Your task to perform on an android device: Do I have any events today? Image 0: 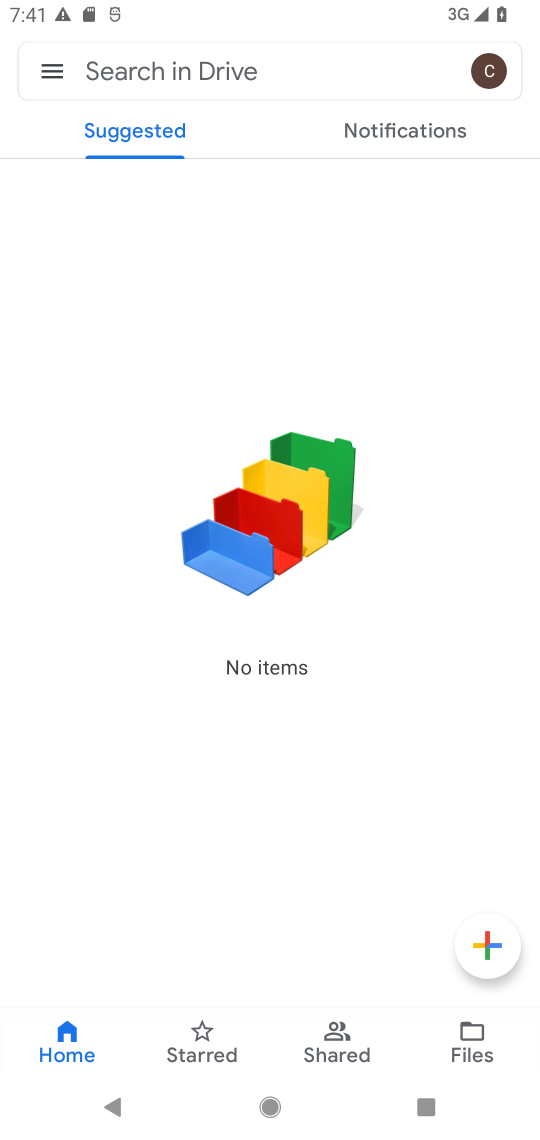
Step 0: press home button
Your task to perform on an android device: Do I have any events today? Image 1: 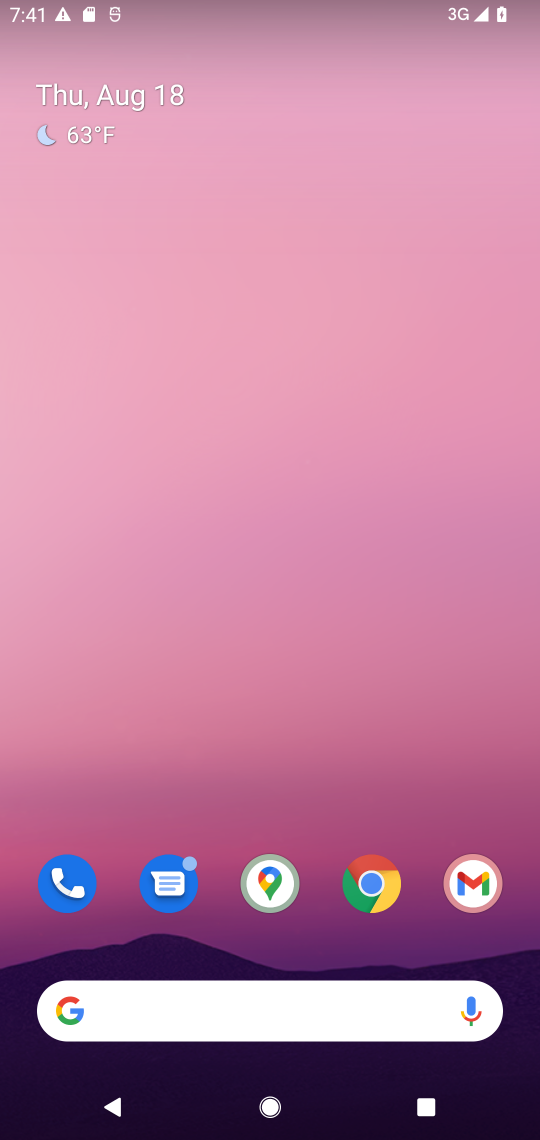
Step 1: drag from (58, 1044) to (186, 741)
Your task to perform on an android device: Do I have any events today? Image 2: 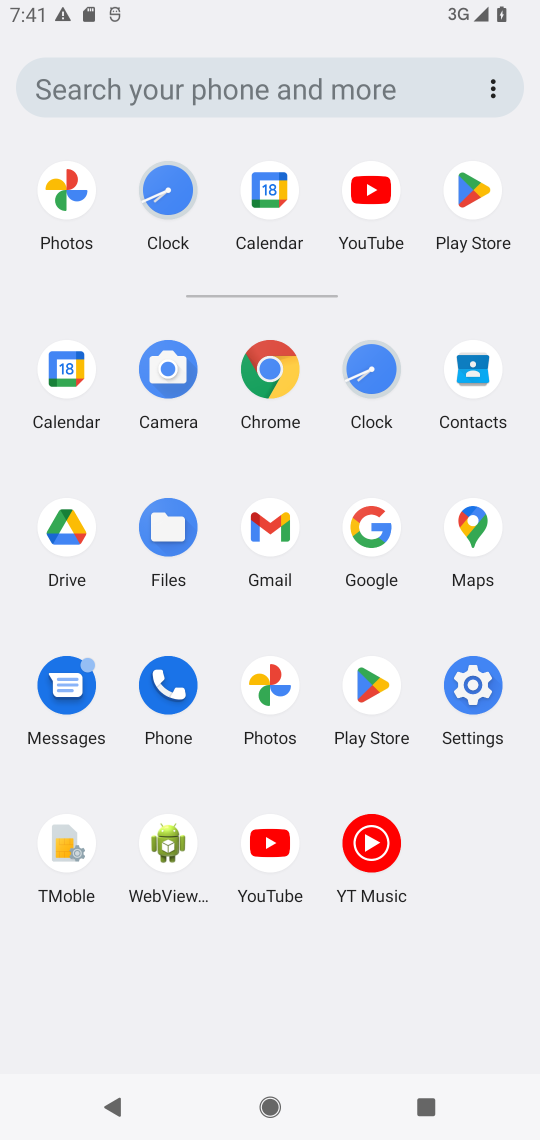
Step 2: click (55, 400)
Your task to perform on an android device: Do I have any events today? Image 3: 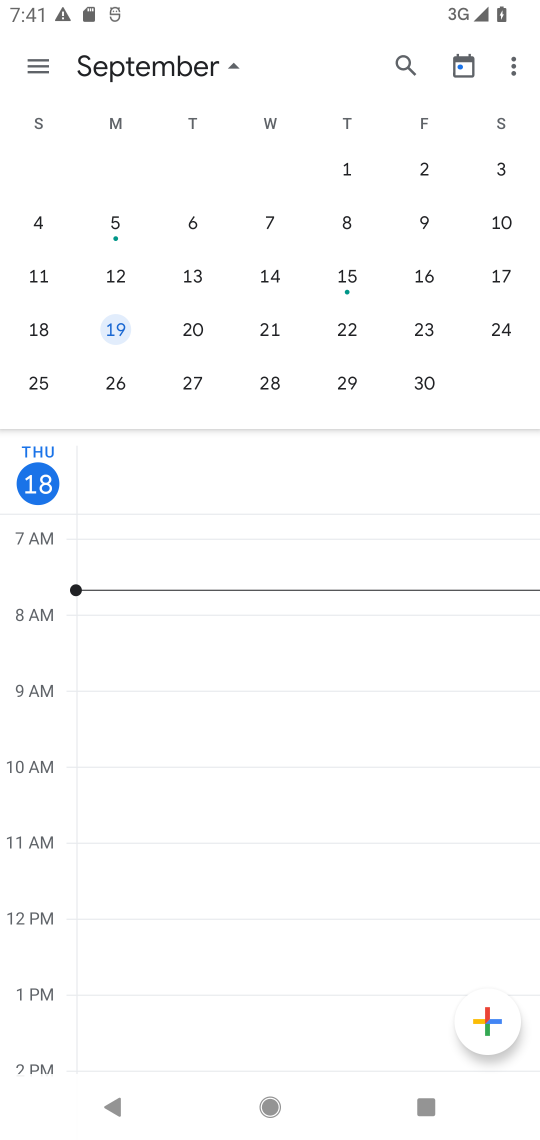
Step 3: drag from (20, 158) to (528, 200)
Your task to perform on an android device: Do I have any events today? Image 4: 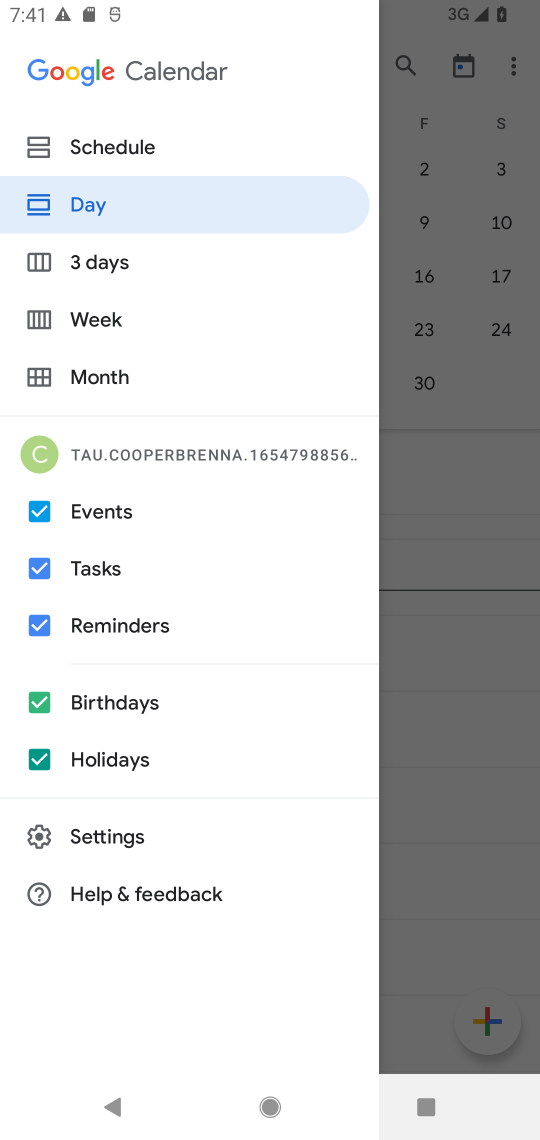
Step 4: click (320, 461)
Your task to perform on an android device: Do I have any events today? Image 5: 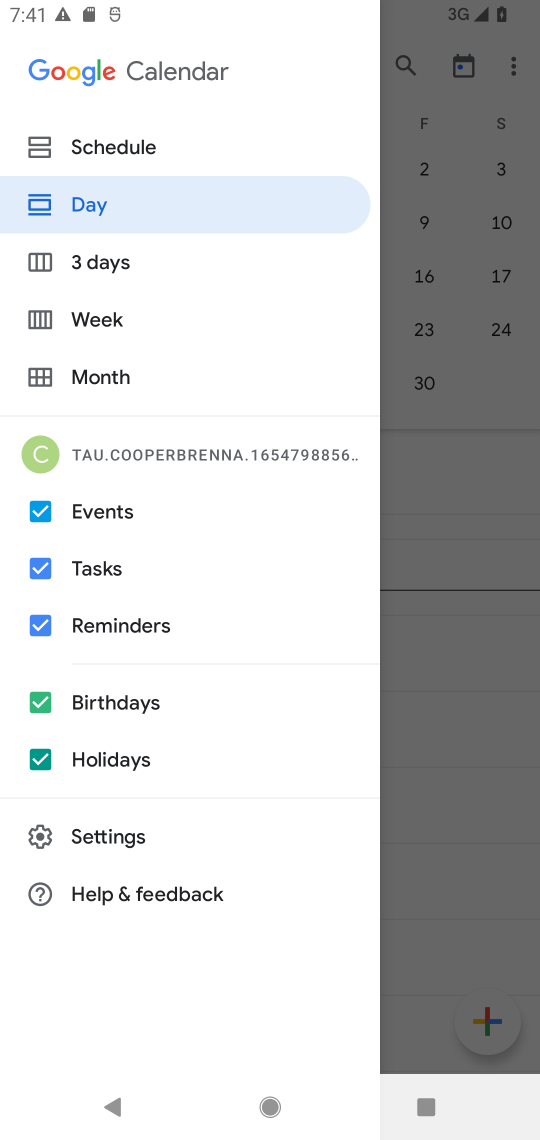
Step 5: click (418, 471)
Your task to perform on an android device: Do I have any events today? Image 6: 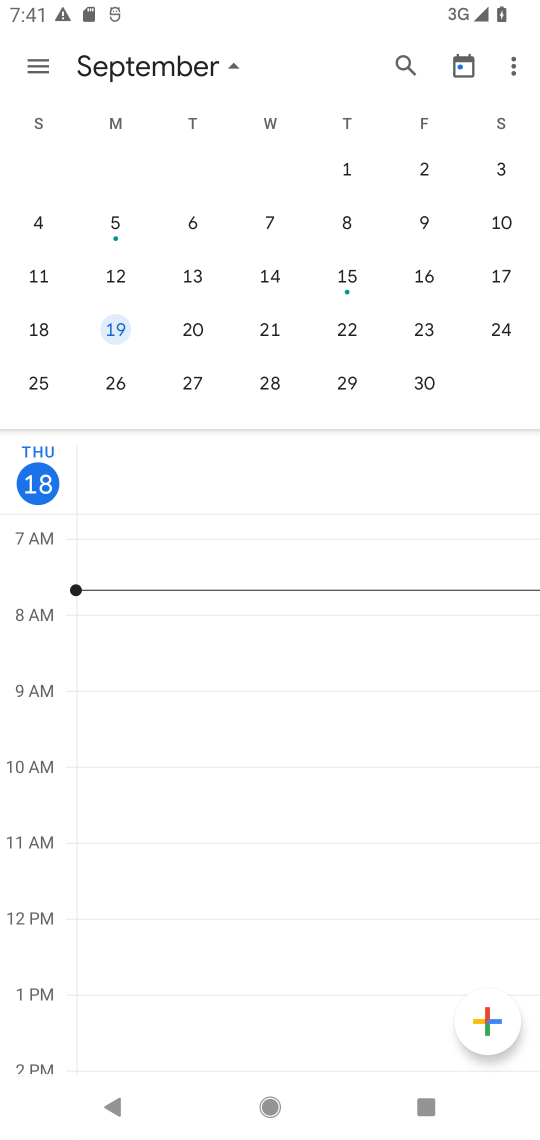
Step 6: drag from (9, 209) to (508, 295)
Your task to perform on an android device: Do I have any events today? Image 7: 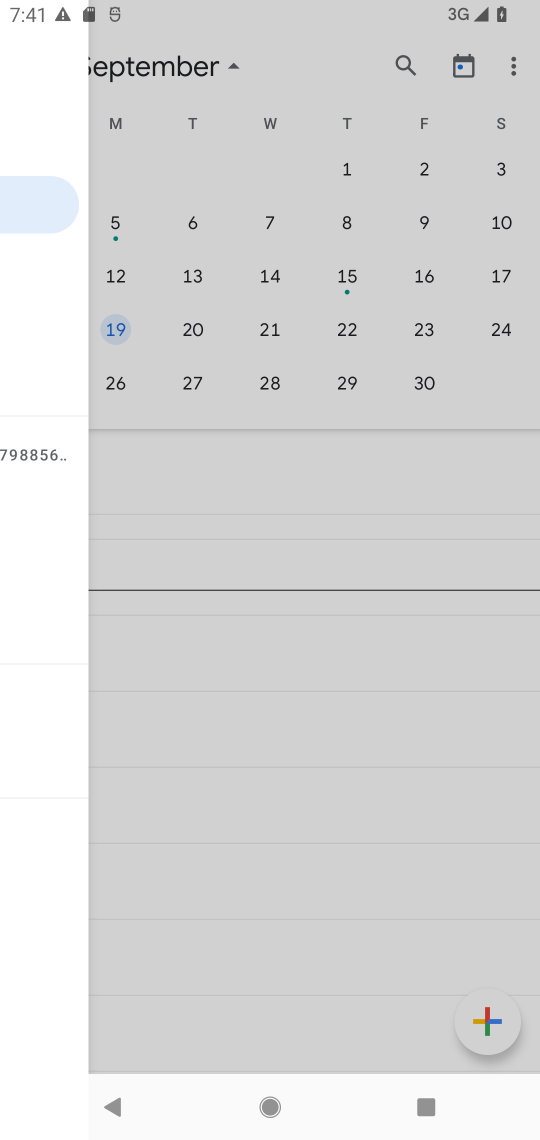
Step 7: click (423, 462)
Your task to perform on an android device: Do I have any events today? Image 8: 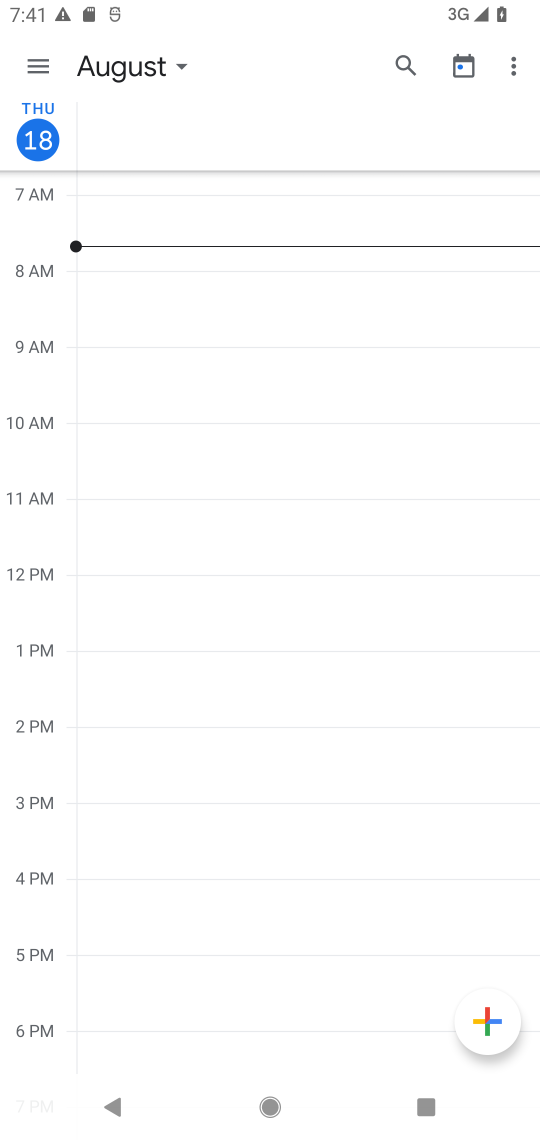
Step 8: click (179, 74)
Your task to perform on an android device: Do I have any events today? Image 9: 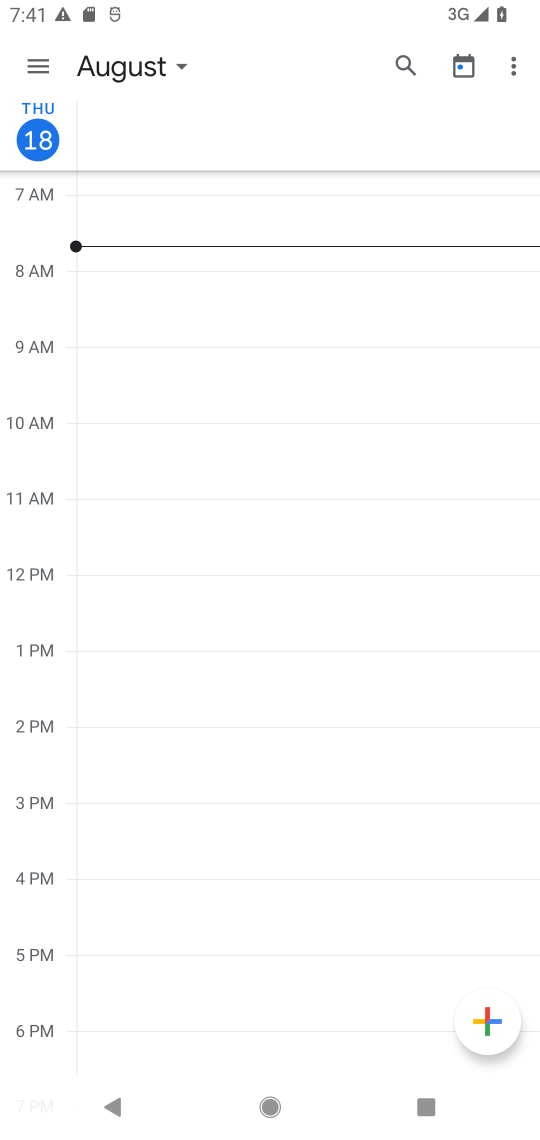
Step 9: click (185, 74)
Your task to perform on an android device: Do I have any events today? Image 10: 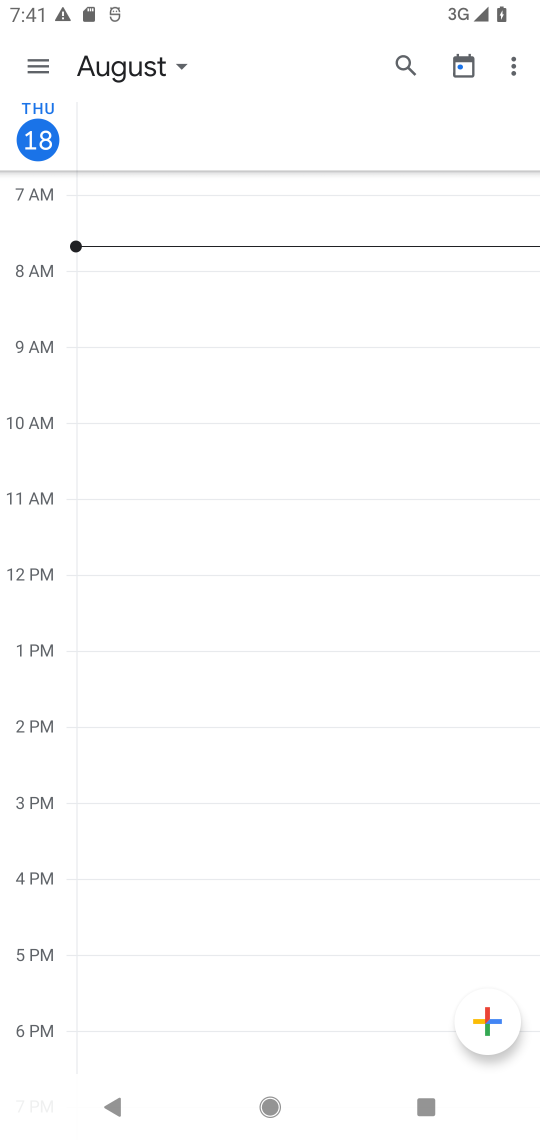
Step 10: click (170, 52)
Your task to perform on an android device: Do I have any events today? Image 11: 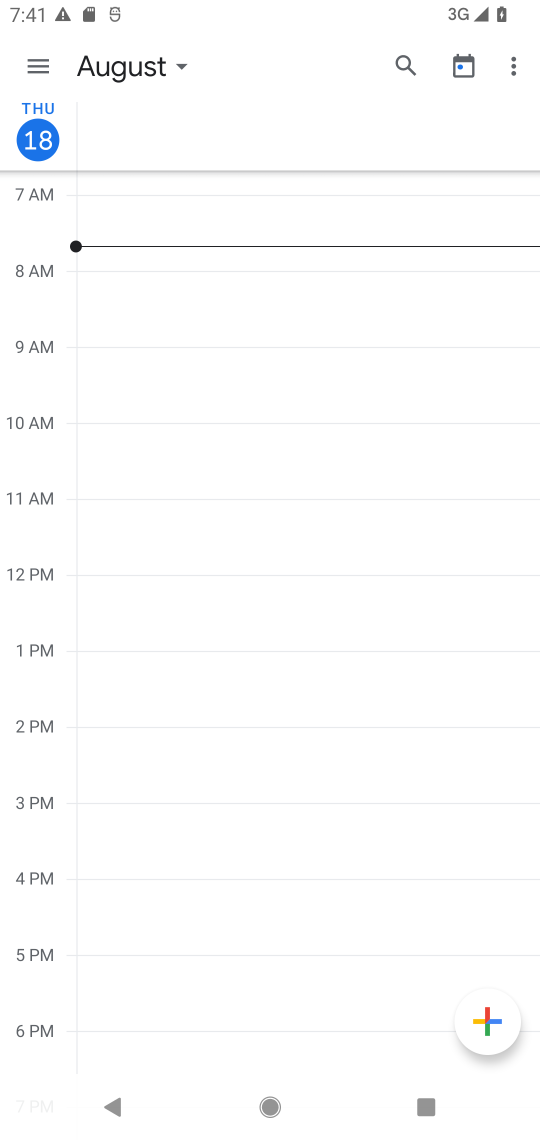
Step 11: click (112, 60)
Your task to perform on an android device: Do I have any events today? Image 12: 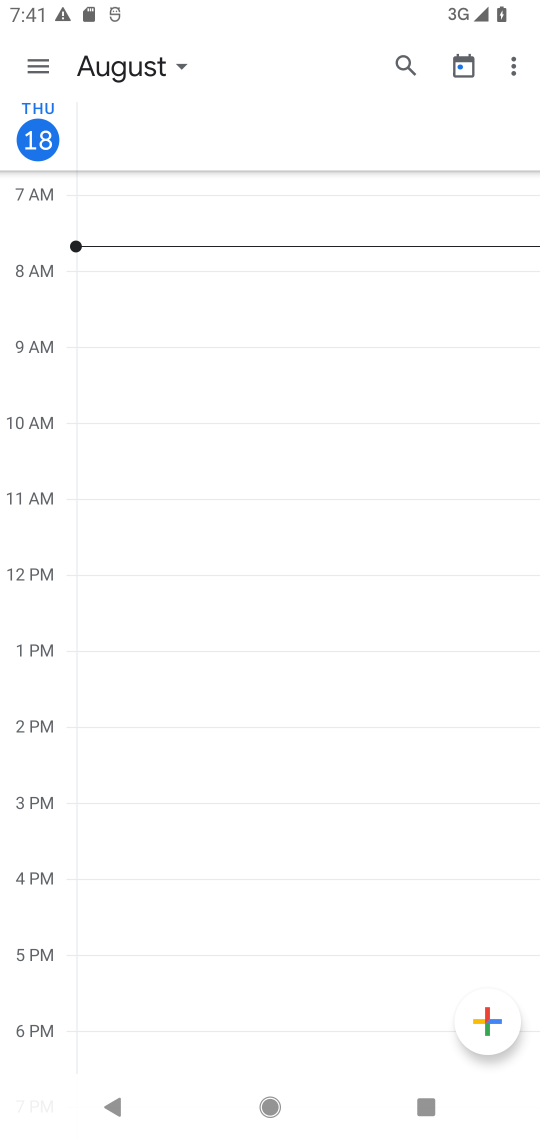
Step 12: click (112, 60)
Your task to perform on an android device: Do I have any events today? Image 13: 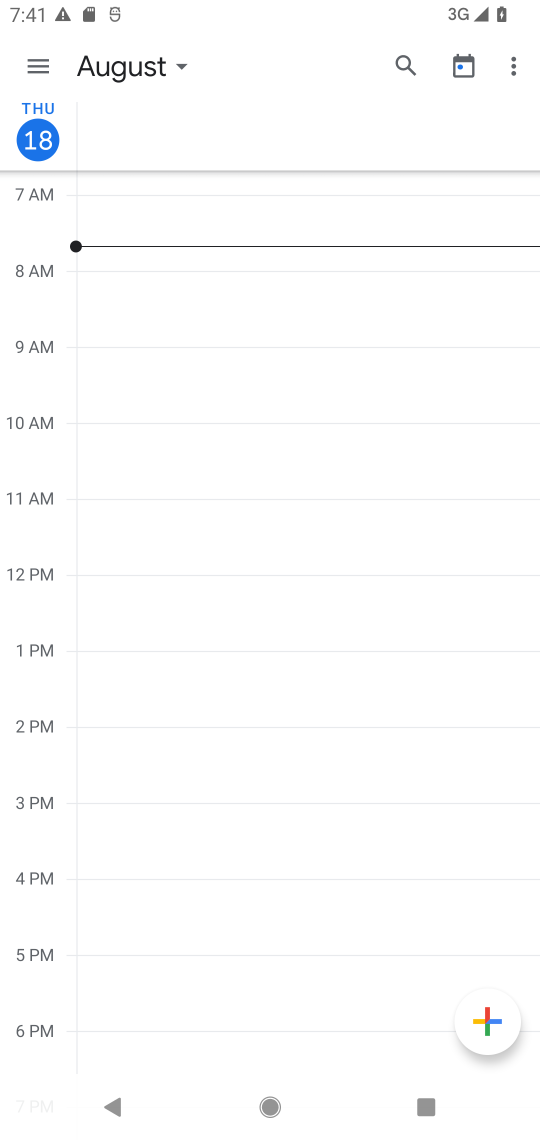
Step 13: click (112, 60)
Your task to perform on an android device: Do I have any events today? Image 14: 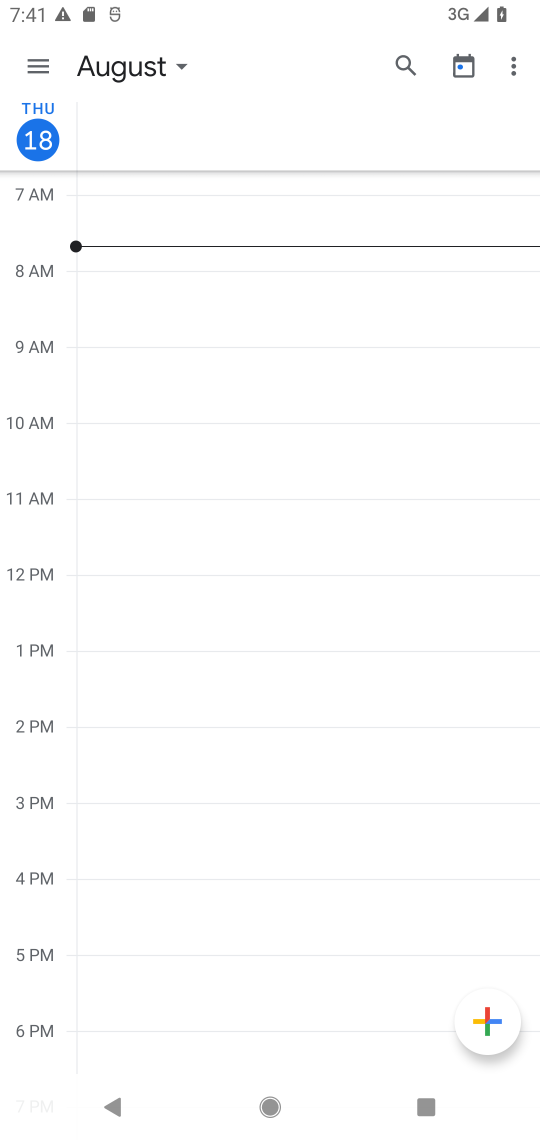
Step 14: task complete